Your task to perform on an android device: turn off data saver in the chrome app Image 0: 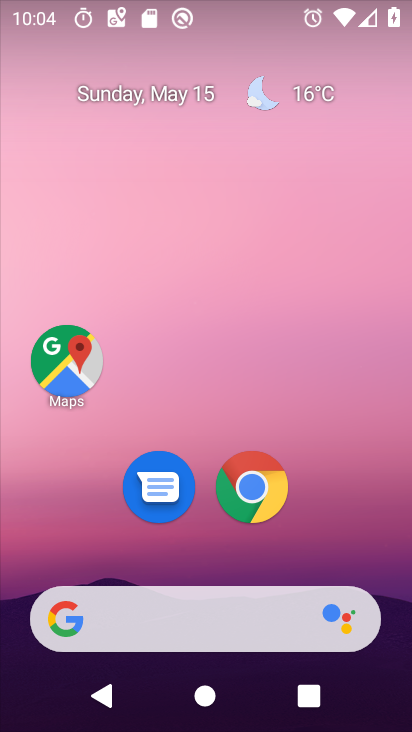
Step 0: drag from (371, 559) to (390, 145)
Your task to perform on an android device: turn off data saver in the chrome app Image 1: 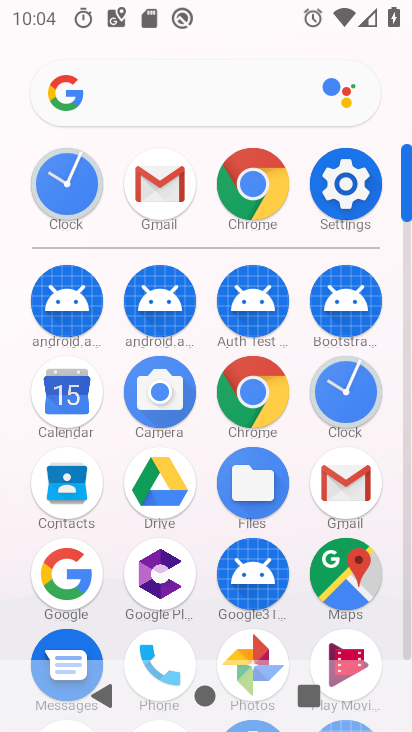
Step 1: click (272, 412)
Your task to perform on an android device: turn off data saver in the chrome app Image 2: 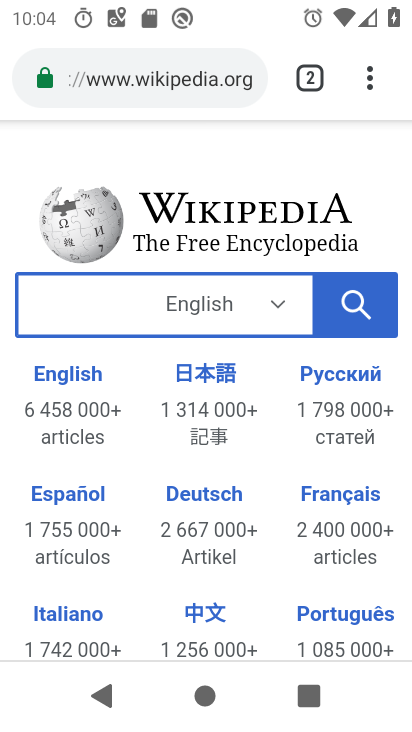
Step 2: drag from (366, 102) to (165, 554)
Your task to perform on an android device: turn off data saver in the chrome app Image 3: 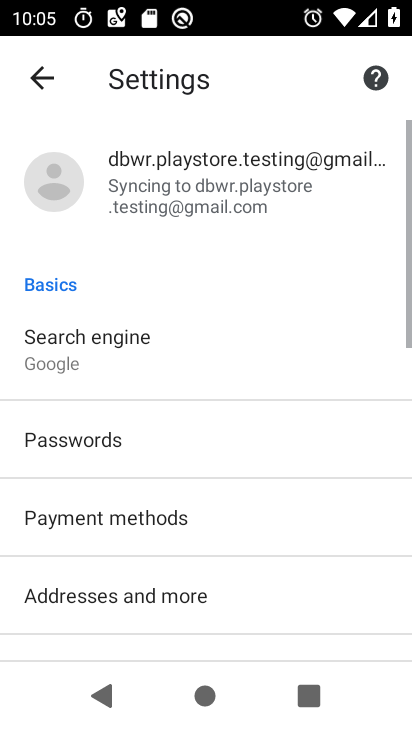
Step 3: drag from (280, 596) to (269, 267)
Your task to perform on an android device: turn off data saver in the chrome app Image 4: 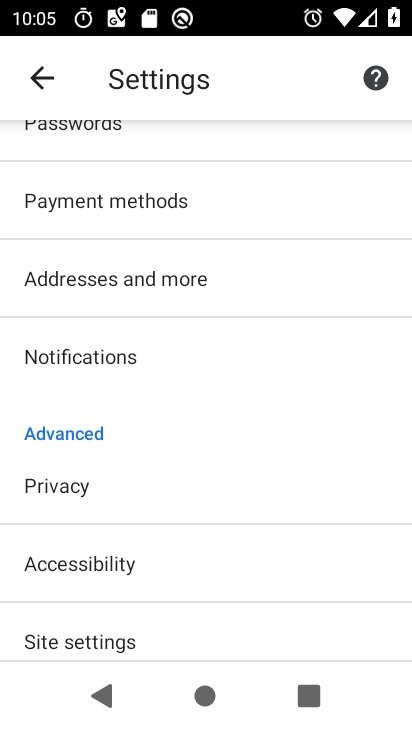
Step 4: drag from (289, 629) to (291, 355)
Your task to perform on an android device: turn off data saver in the chrome app Image 5: 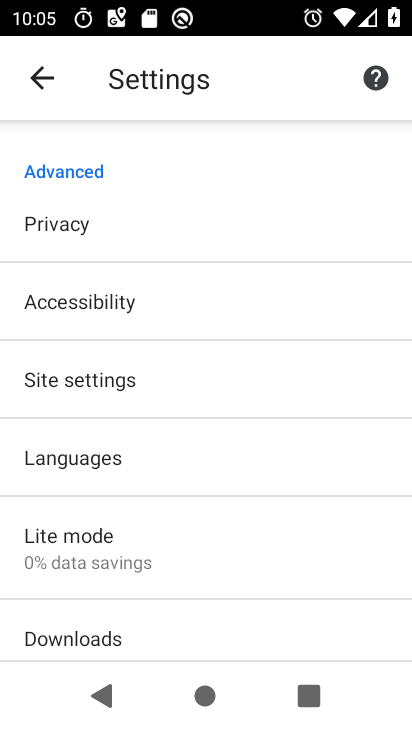
Step 5: click (125, 546)
Your task to perform on an android device: turn off data saver in the chrome app Image 6: 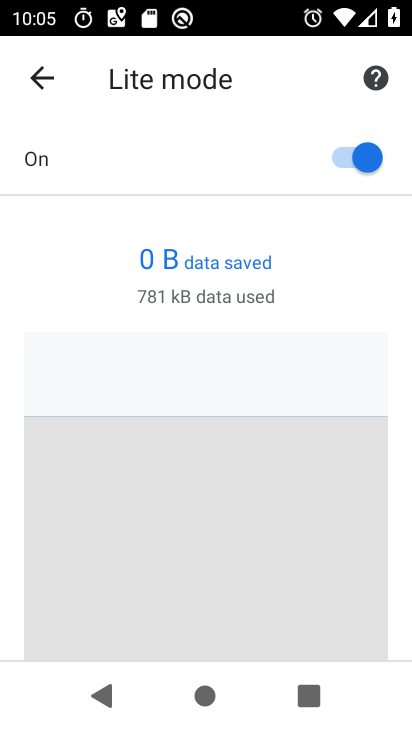
Step 6: click (345, 171)
Your task to perform on an android device: turn off data saver in the chrome app Image 7: 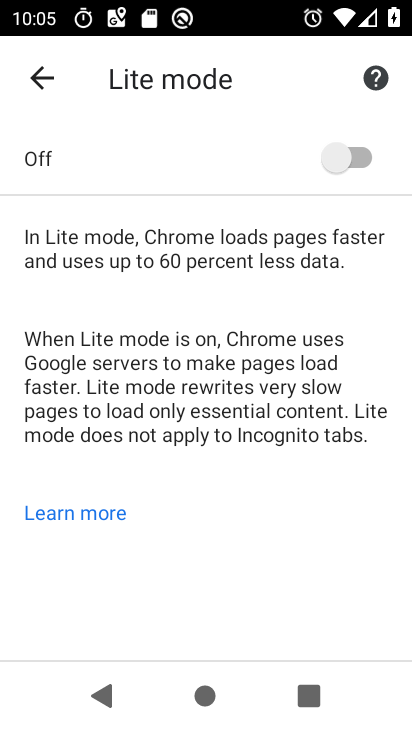
Step 7: task complete